Your task to perform on an android device: Do I have any events today? Image 0: 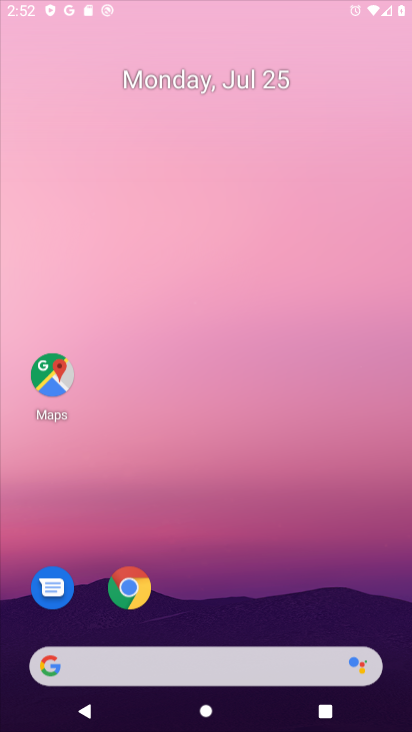
Step 0: press home button
Your task to perform on an android device: Do I have any events today? Image 1: 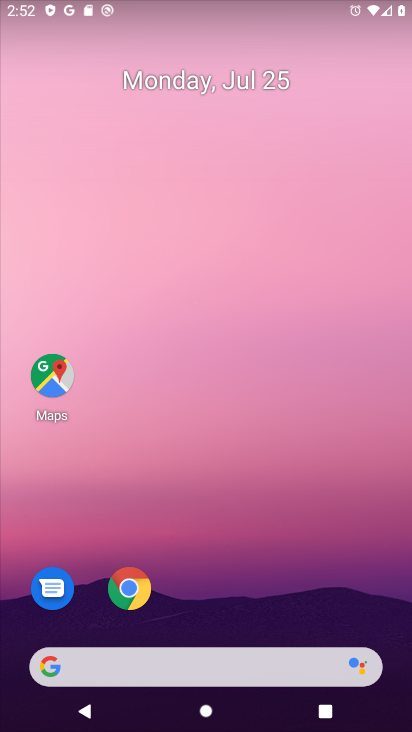
Step 1: drag from (219, 629) to (222, 37)
Your task to perform on an android device: Do I have any events today? Image 2: 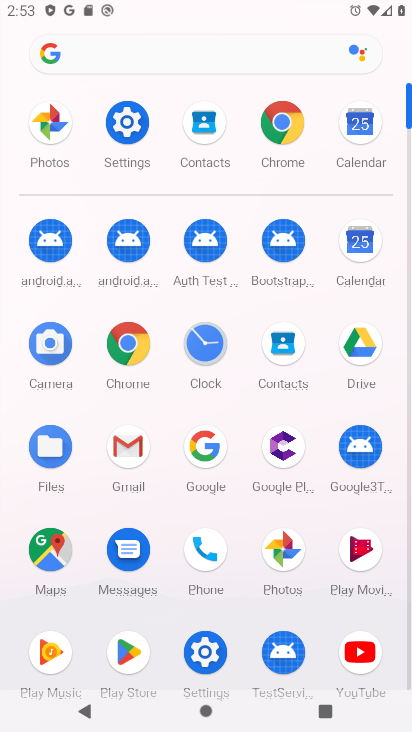
Step 2: click (360, 237)
Your task to perform on an android device: Do I have any events today? Image 3: 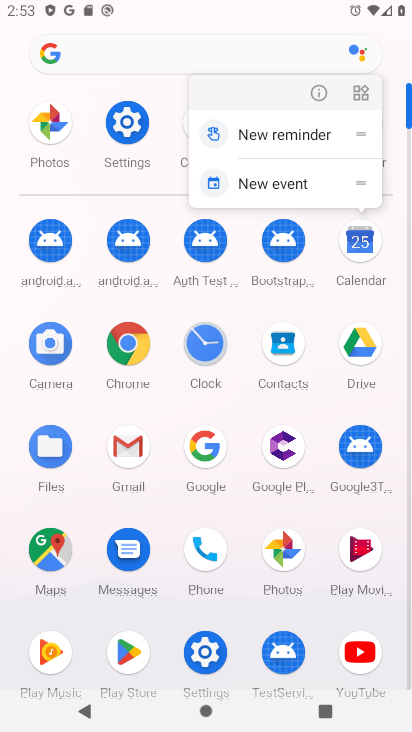
Step 3: click (361, 239)
Your task to perform on an android device: Do I have any events today? Image 4: 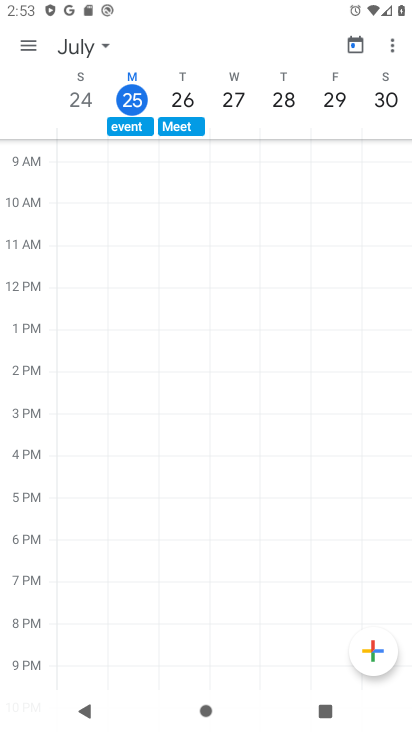
Step 4: click (27, 44)
Your task to perform on an android device: Do I have any events today? Image 5: 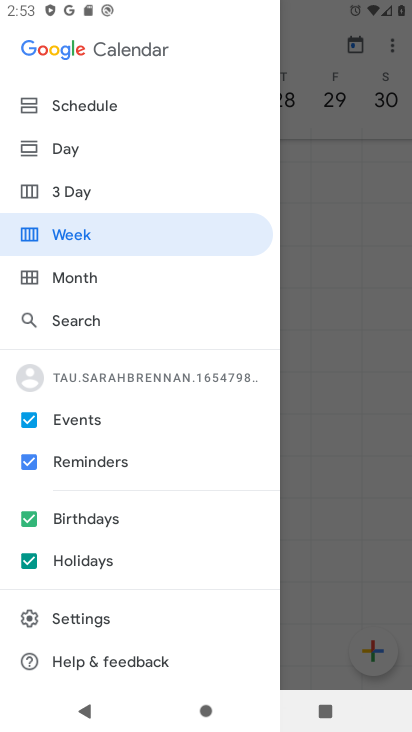
Step 5: click (65, 148)
Your task to perform on an android device: Do I have any events today? Image 6: 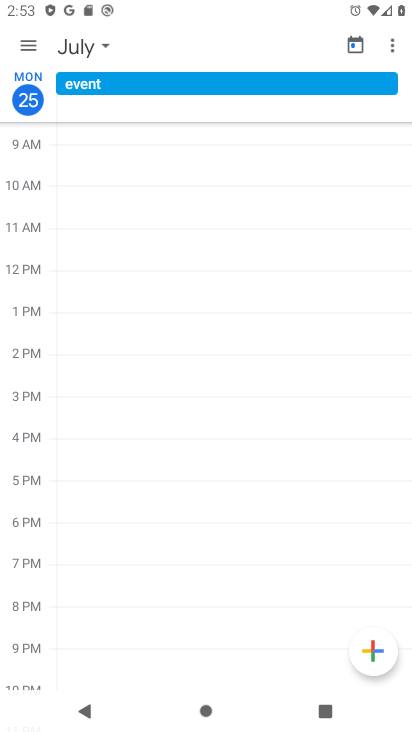
Step 6: task complete